Your task to perform on an android device: change the upload size in google photos Image 0: 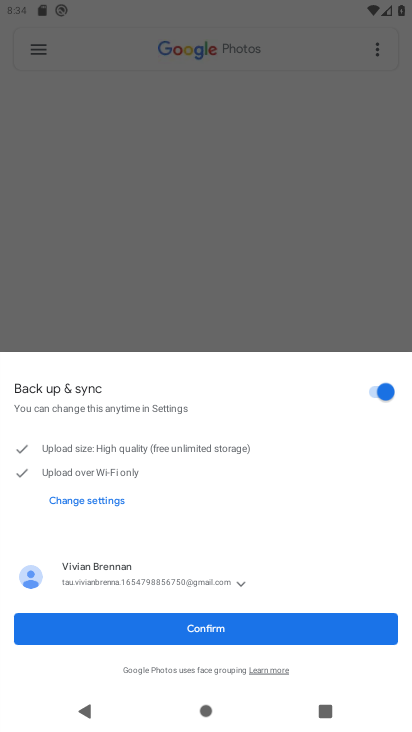
Step 0: click (218, 623)
Your task to perform on an android device: change the upload size in google photos Image 1: 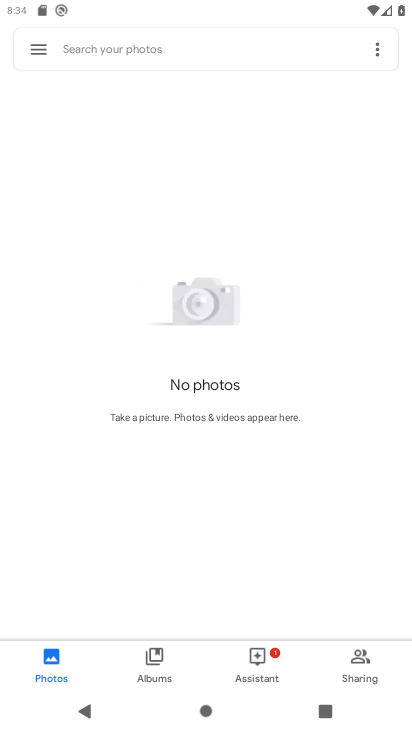
Step 1: click (34, 63)
Your task to perform on an android device: change the upload size in google photos Image 2: 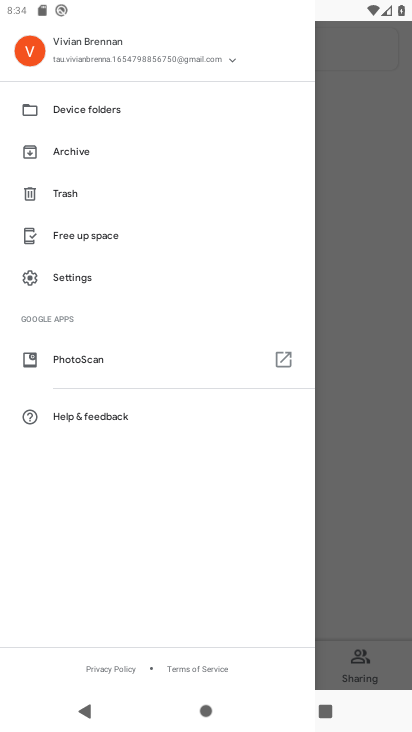
Step 2: click (138, 278)
Your task to perform on an android device: change the upload size in google photos Image 3: 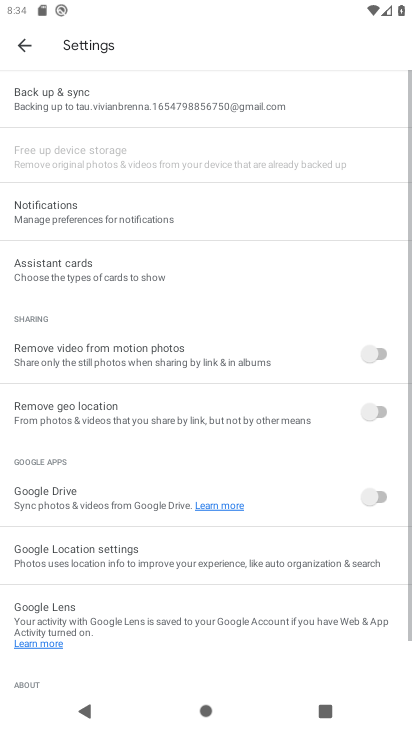
Step 3: click (180, 114)
Your task to perform on an android device: change the upload size in google photos Image 4: 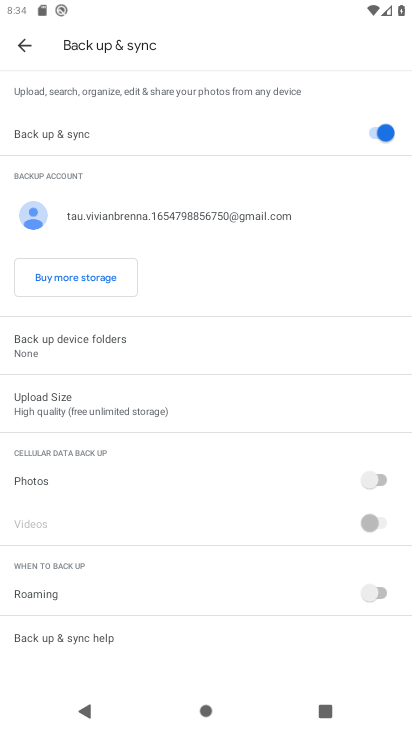
Step 4: click (158, 406)
Your task to perform on an android device: change the upload size in google photos Image 5: 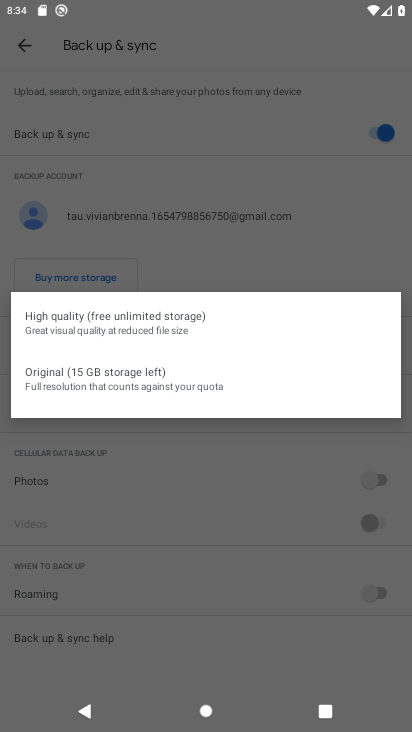
Step 5: click (156, 388)
Your task to perform on an android device: change the upload size in google photos Image 6: 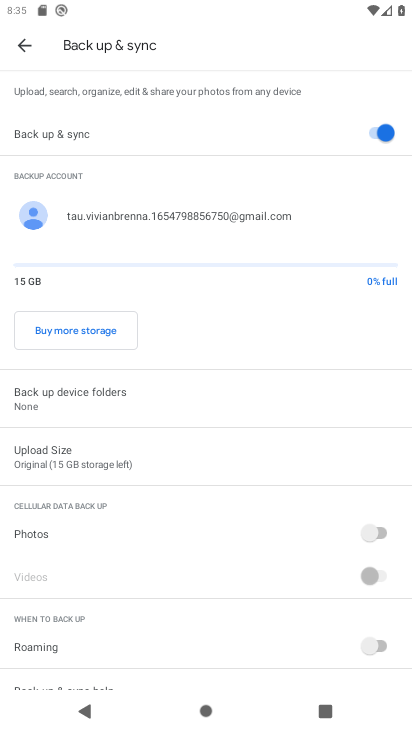
Step 6: task complete